Your task to perform on an android device: turn on data saver in the chrome app Image 0: 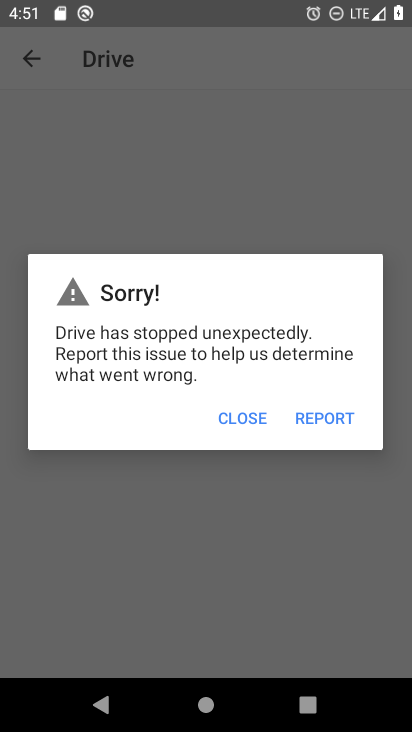
Step 0: press home button
Your task to perform on an android device: turn on data saver in the chrome app Image 1: 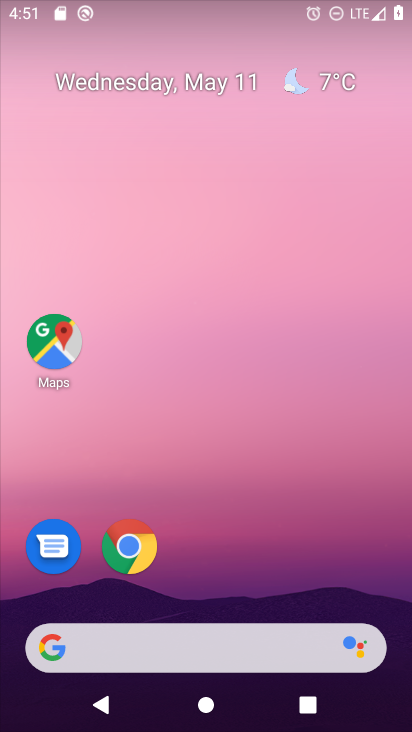
Step 1: drag from (296, 682) to (411, 6)
Your task to perform on an android device: turn on data saver in the chrome app Image 2: 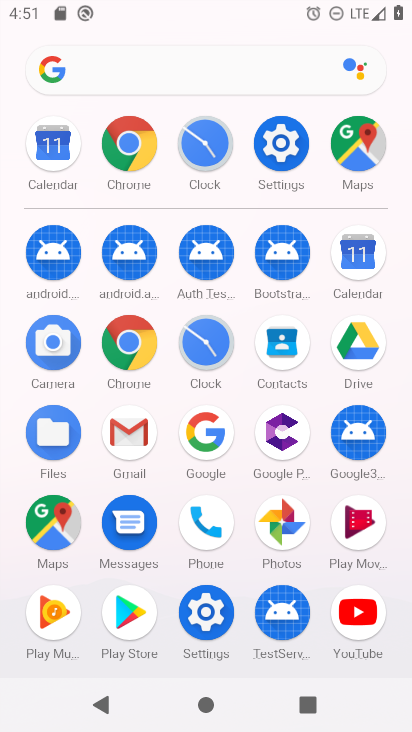
Step 2: click (129, 344)
Your task to perform on an android device: turn on data saver in the chrome app Image 3: 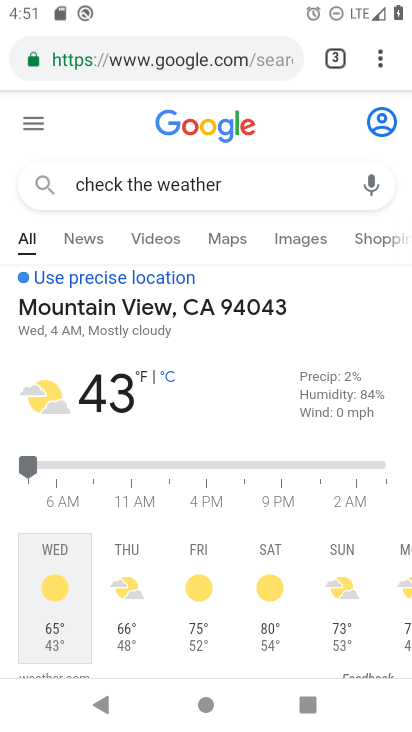
Step 3: drag from (381, 54) to (198, 586)
Your task to perform on an android device: turn on data saver in the chrome app Image 4: 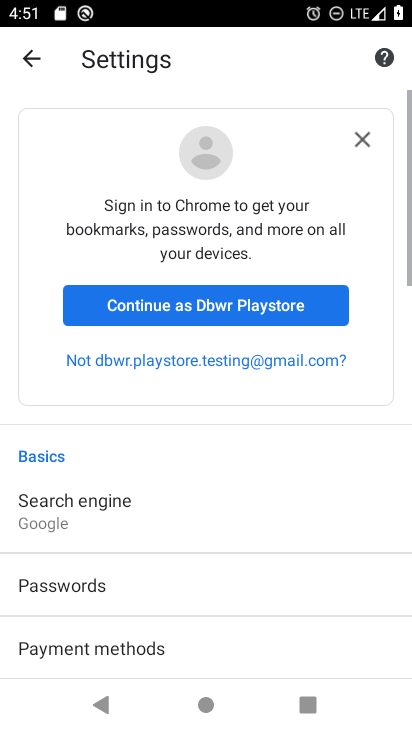
Step 4: drag from (252, 662) to (331, 17)
Your task to perform on an android device: turn on data saver in the chrome app Image 5: 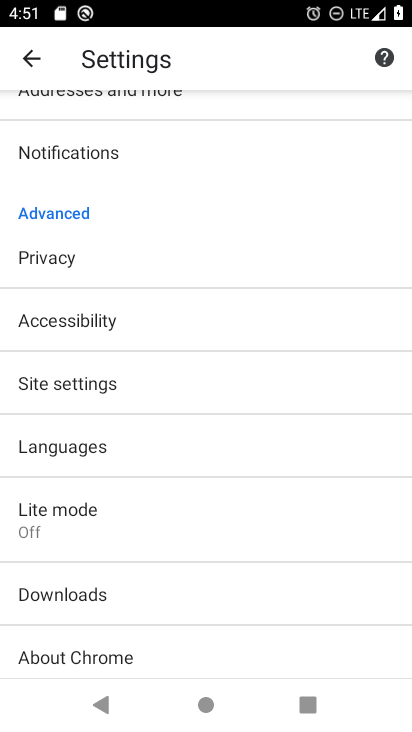
Step 5: click (102, 512)
Your task to perform on an android device: turn on data saver in the chrome app Image 6: 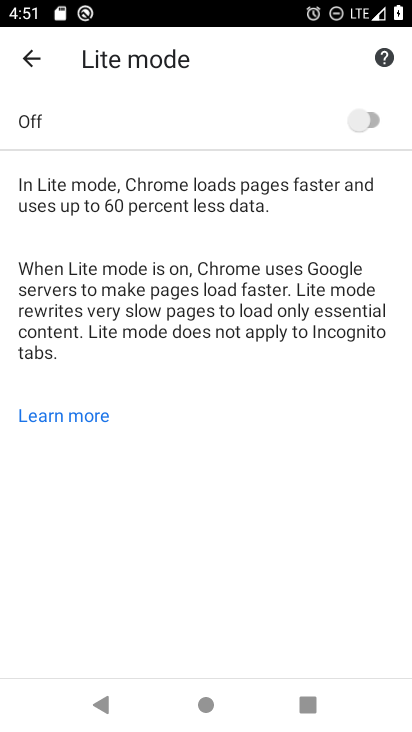
Step 6: click (373, 118)
Your task to perform on an android device: turn on data saver in the chrome app Image 7: 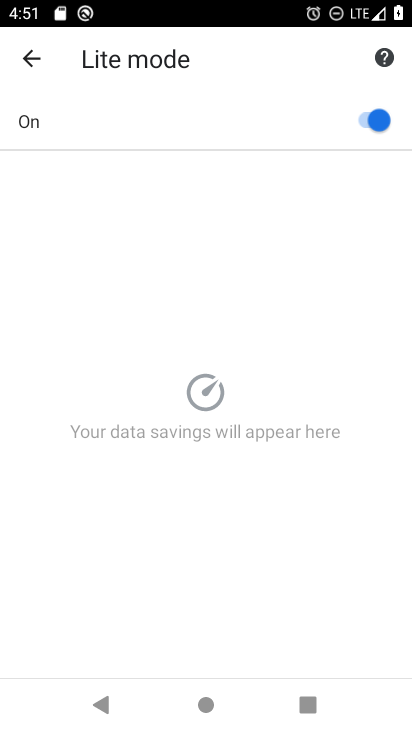
Step 7: task complete